Your task to perform on an android device: Open Yahoo.com Image 0: 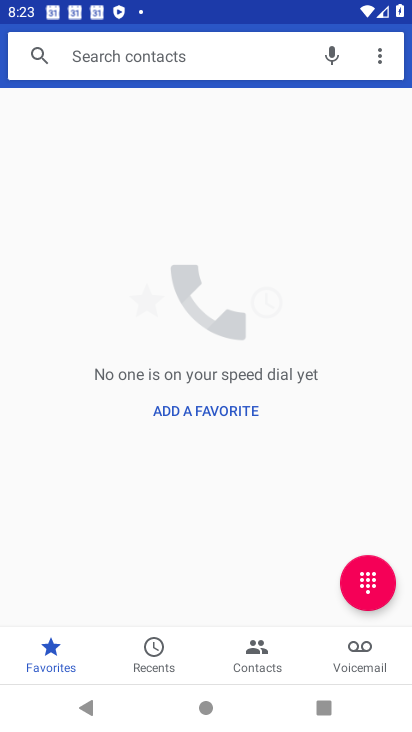
Step 0: press home button
Your task to perform on an android device: Open Yahoo.com Image 1: 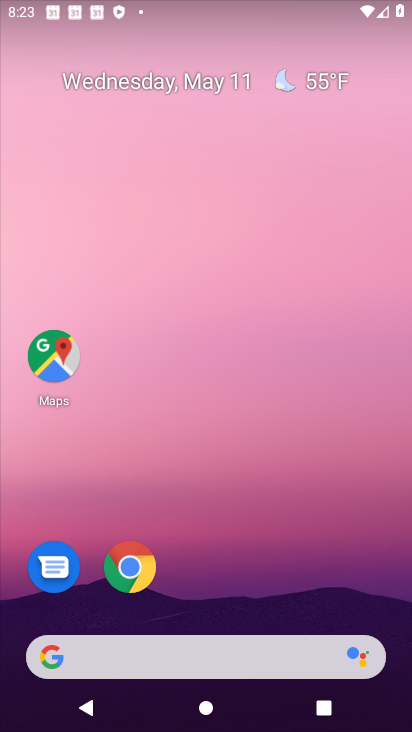
Step 1: drag from (282, 634) to (259, 19)
Your task to perform on an android device: Open Yahoo.com Image 2: 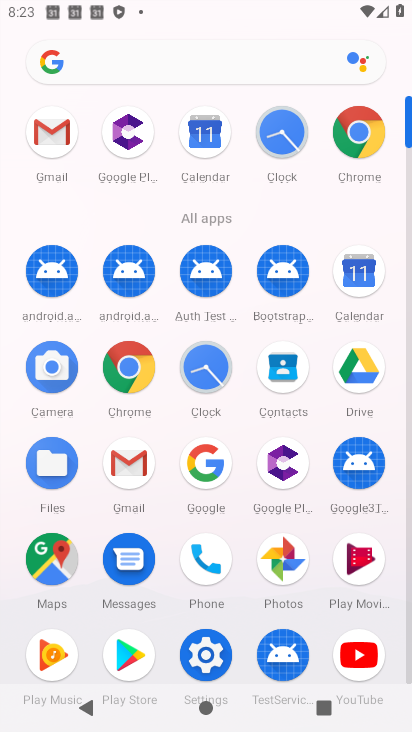
Step 2: click (133, 357)
Your task to perform on an android device: Open Yahoo.com Image 3: 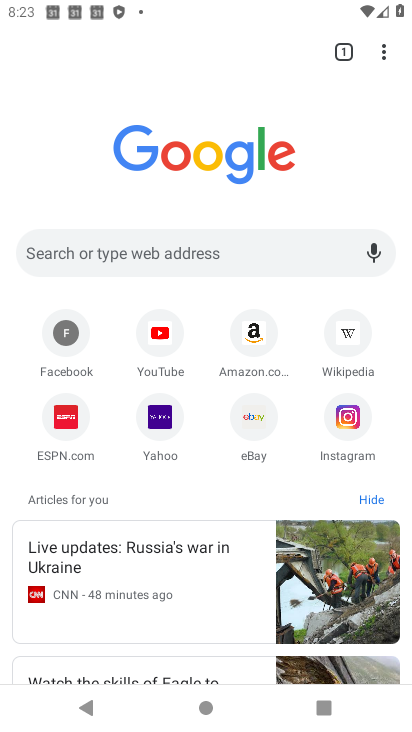
Step 3: click (148, 422)
Your task to perform on an android device: Open Yahoo.com Image 4: 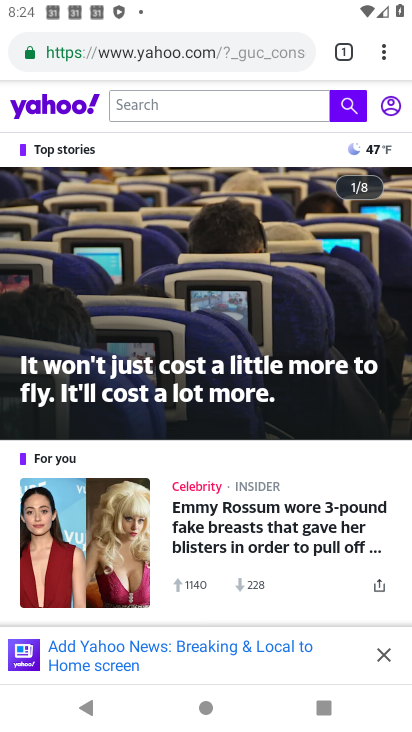
Step 4: task complete